Your task to perform on an android device: Open Google Maps and go to "Timeline" Image 0: 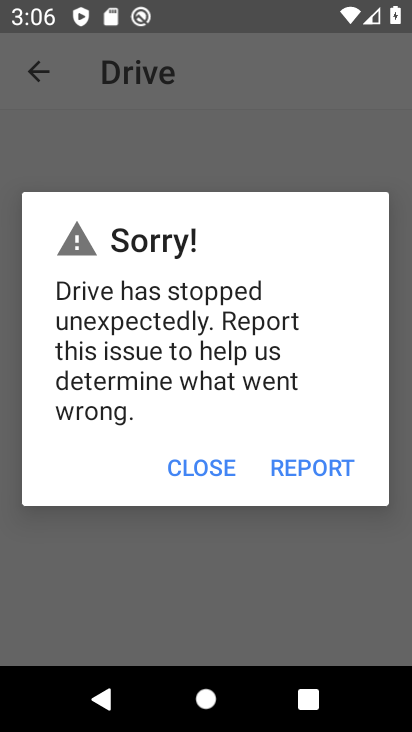
Step 0: press home button
Your task to perform on an android device: Open Google Maps and go to "Timeline" Image 1: 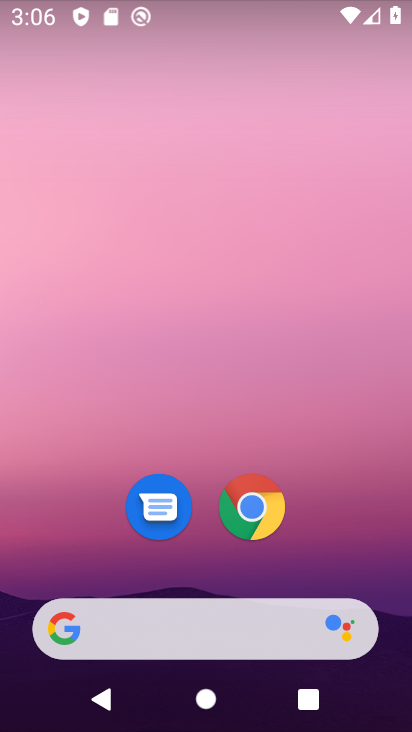
Step 1: click (68, 381)
Your task to perform on an android device: Open Google Maps and go to "Timeline" Image 2: 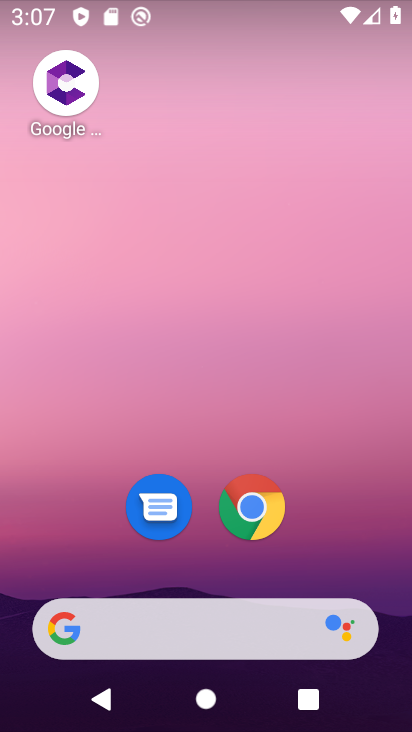
Step 2: drag from (203, 575) to (313, 67)
Your task to perform on an android device: Open Google Maps and go to "Timeline" Image 3: 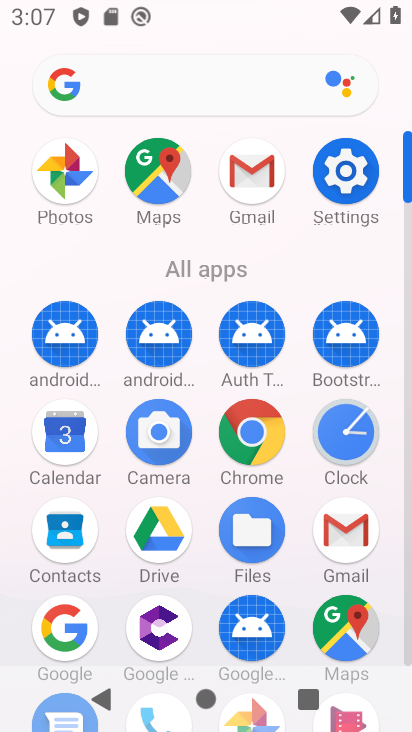
Step 3: click (337, 634)
Your task to perform on an android device: Open Google Maps and go to "Timeline" Image 4: 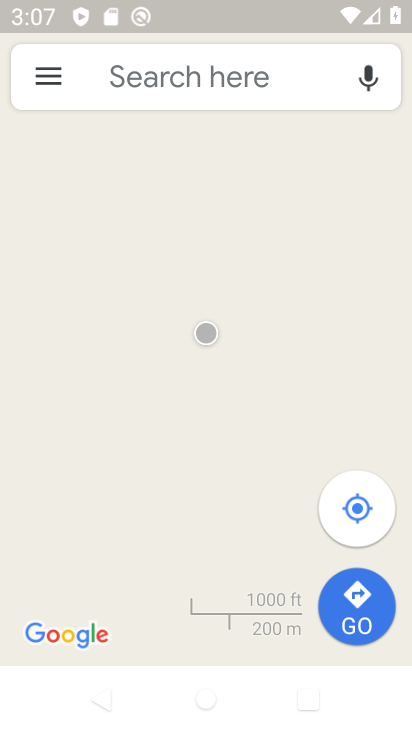
Step 4: click (37, 78)
Your task to perform on an android device: Open Google Maps and go to "Timeline" Image 5: 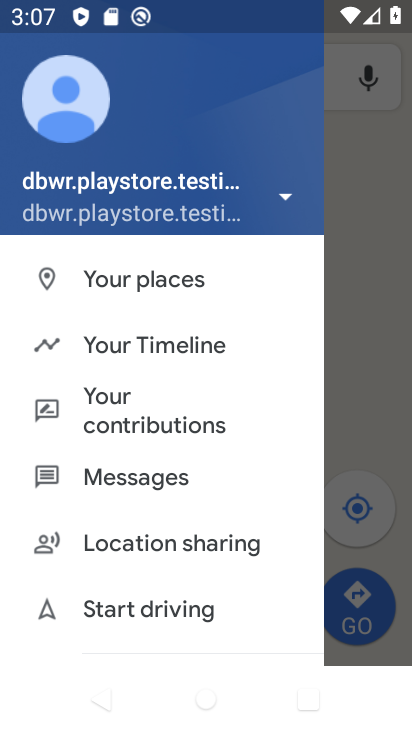
Step 5: click (142, 342)
Your task to perform on an android device: Open Google Maps and go to "Timeline" Image 6: 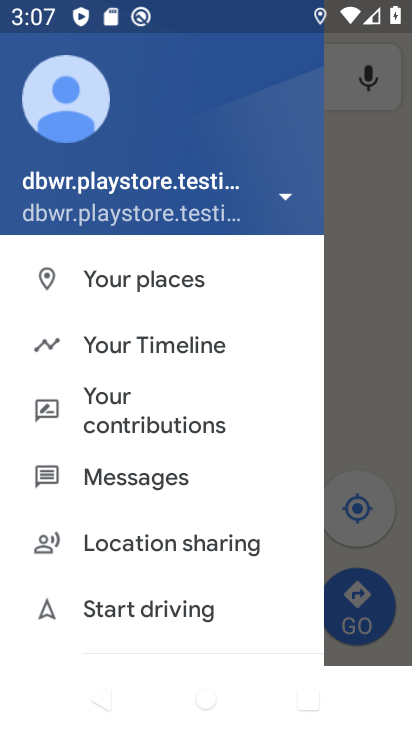
Step 6: click (143, 342)
Your task to perform on an android device: Open Google Maps and go to "Timeline" Image 7: 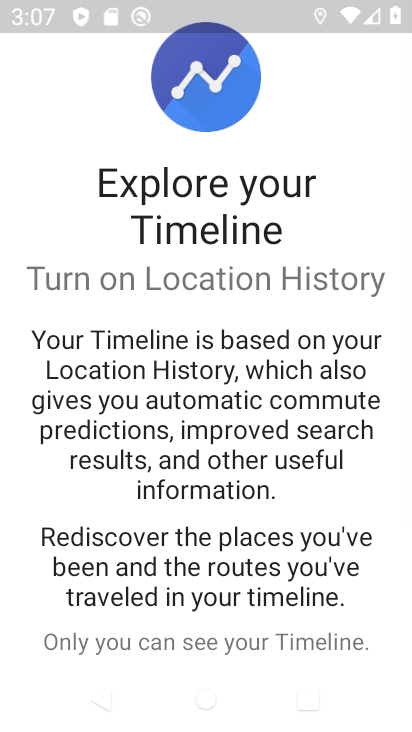
Step 7: task complete